Your task to perform on an android device: find snoozed emails in the gmail app Image 0: 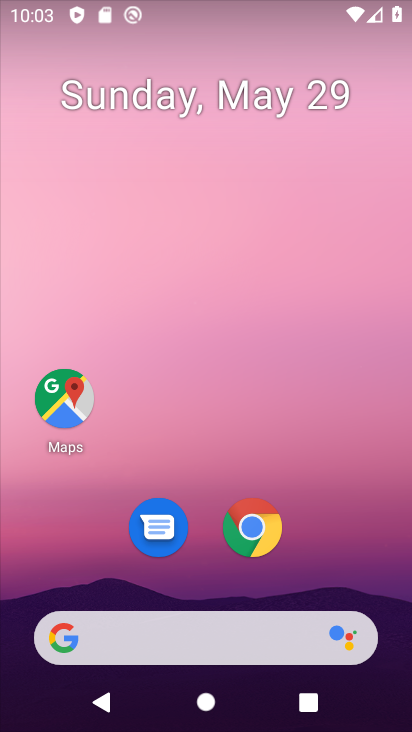
Step 0: drag from (337, 515) to (337, 468)
Your task to perform on an android device: find snoozed emails in the gmail app Image 1: 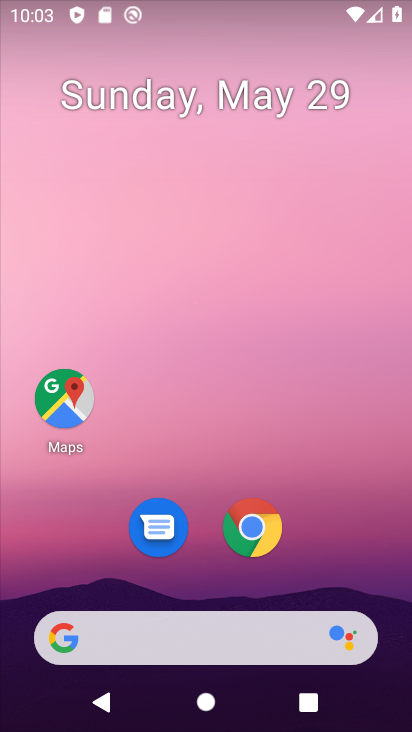
Step 1: click (305, 76)
Your task to perform on an android device: find snoozed emails in the gmail app Image 2: 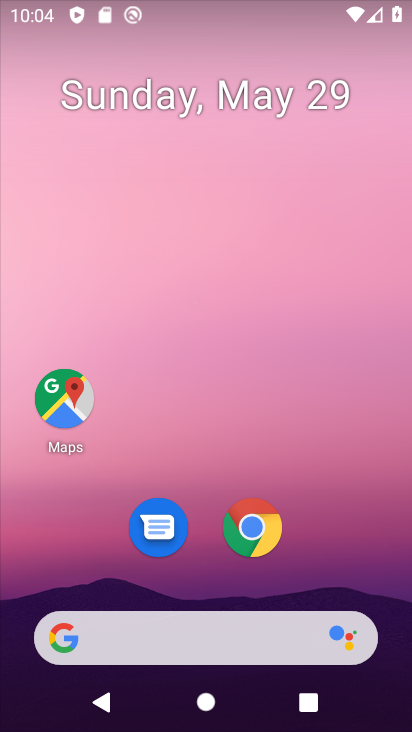
Step 2: drag from (365, 557) to (351, 16)
Your task to perform on an android device: find snoozed emails in the gmail app Image 3: 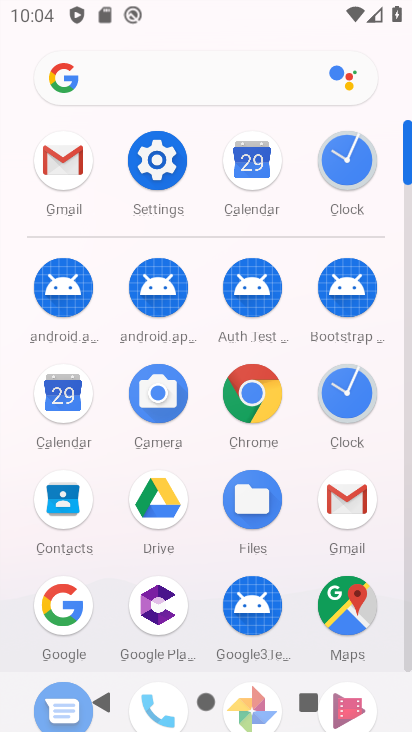
Step 3: click (76, 174)
Your task to perform on an android device: find snoozed emails in the gmail app Image 4: 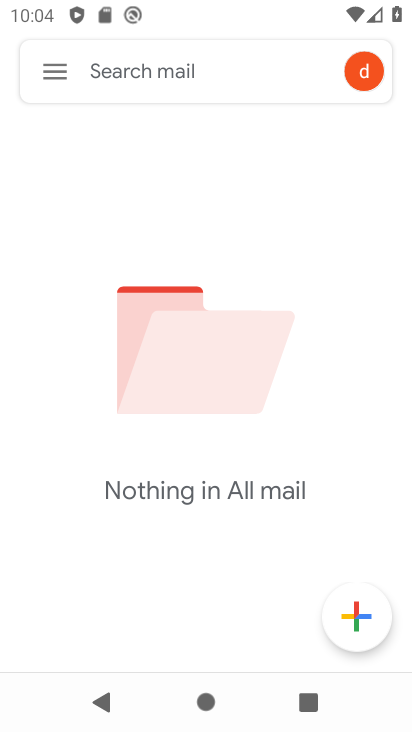
Step 4: click (57, 58)
Your task to perform on an android device: find snoozed emails in the gmail app Image 5: 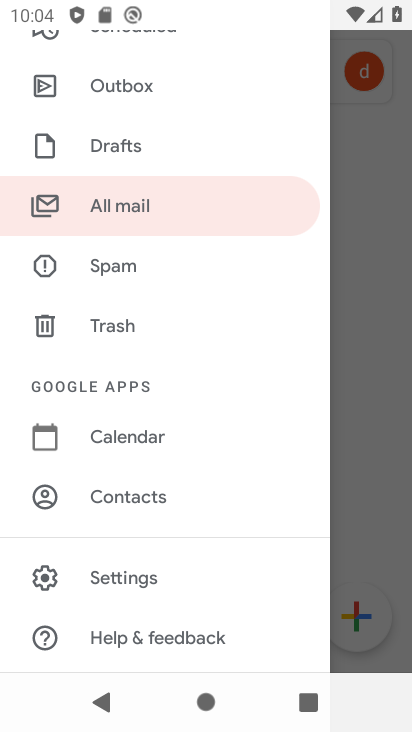
Step 5: drag from (209, 103) to (183, 352)
Your task to perform on an android device: find snoozed emails in the gmail app Image 6: 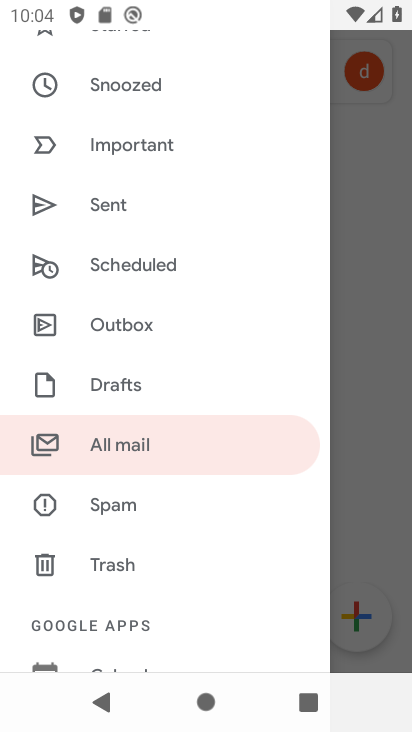
Step 6: drag from (197, 190) to (142, 372)
Your task to perform on an android device: find snoozed emails in the gmail app Image 7: 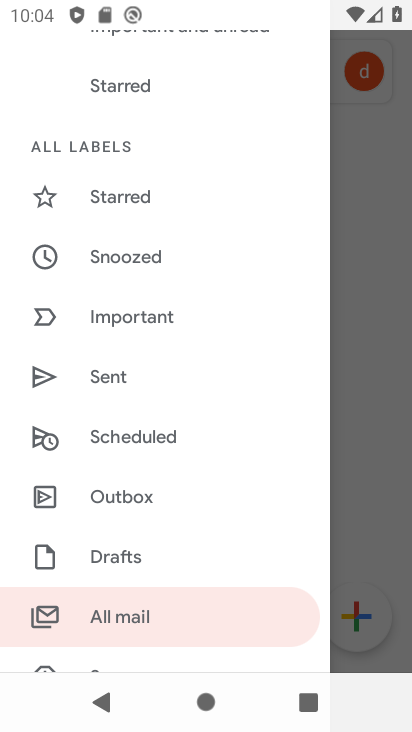
Step 7: click (140, 258)
Your task to perform on an android device: find snoozed emails in the gmail app Image 8: 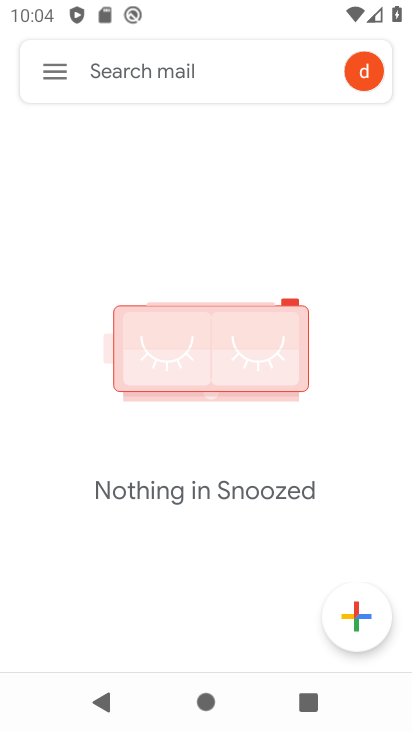
Step 8: task complete